Your task to perform on an android device: Open CNN.com Image 0: 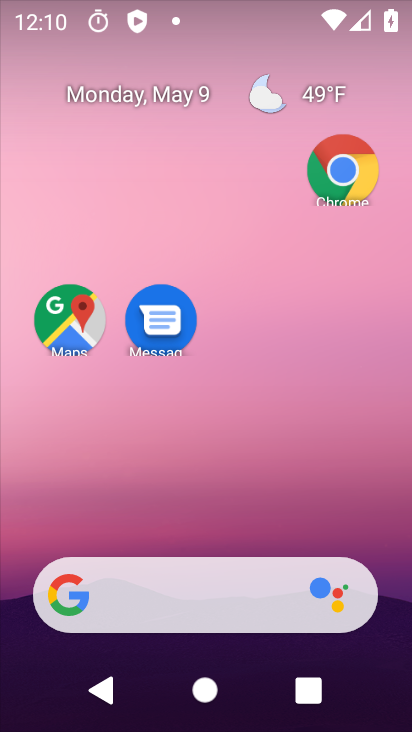
Step 0: drag from (207, 439) to (223, 13)
Your task to perform on an android device: Open CNN.com Image 1: 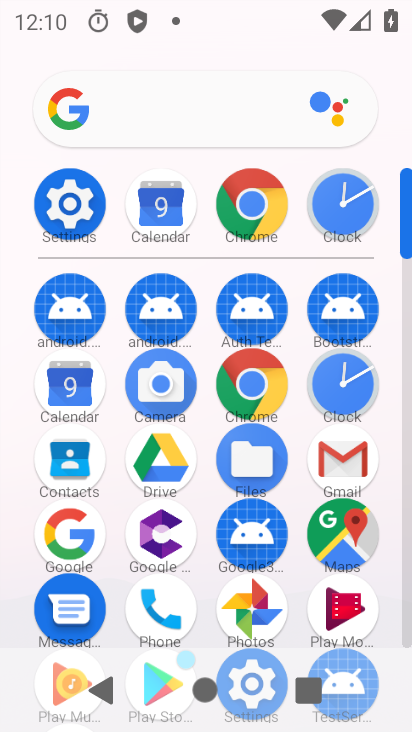
Step 1: click (109, 108)
Your task to perform on an android device: Open CNN.com Image 2: 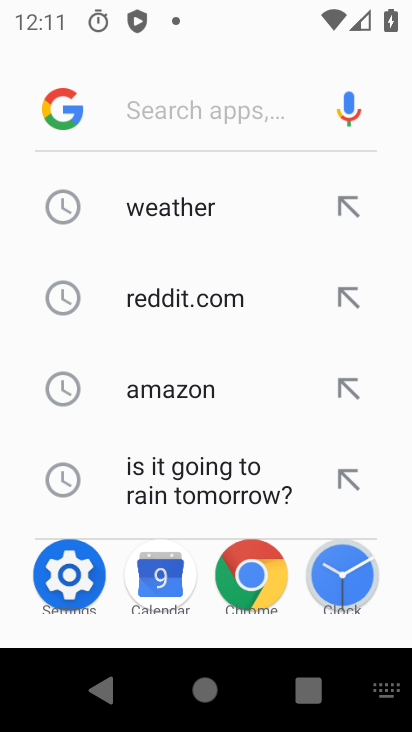
Step 2: type "CNN.com"
Your task to perform on an android device: Open CNN.com Image 3: 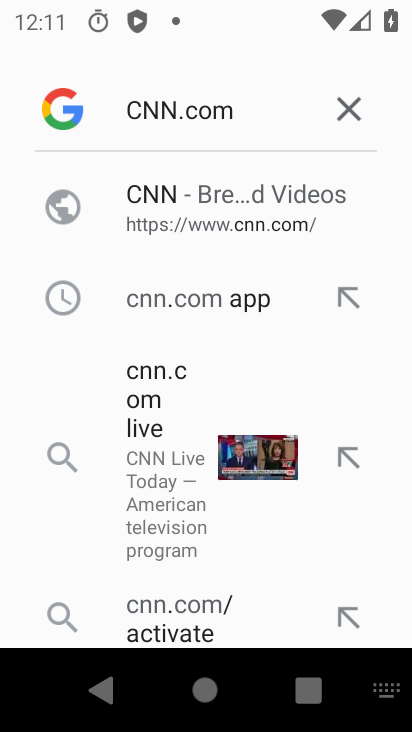
Step 3: click (289, 190)
Your task to perform on an android device: Open CNN.com Image 4: 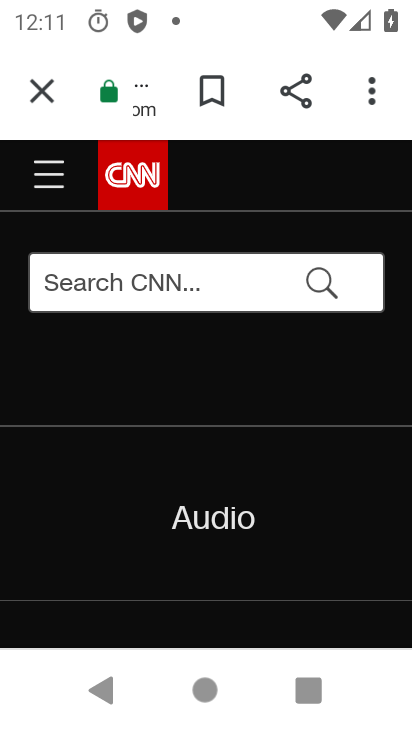
Step 4: task complete